Your task to perform on an android device: Go to internet settings Image 0: 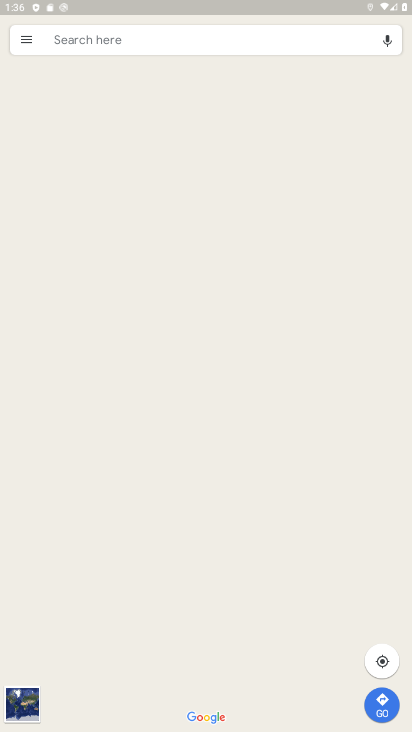
Step 0: press home button
Your task to perform on an android device: Go to internet settings Image 1: 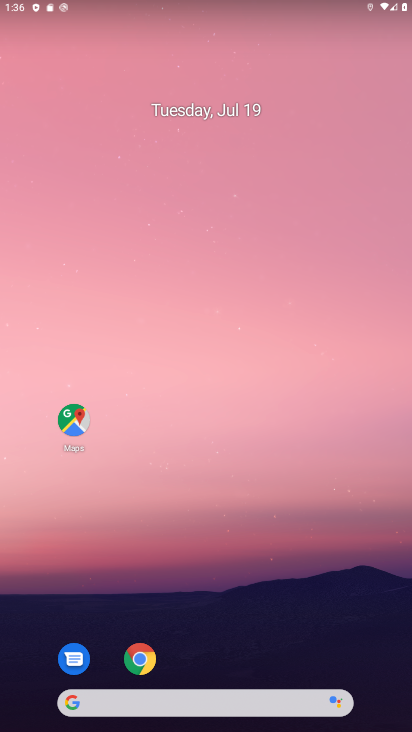
Step 1: drag from (196, 650) to (230, 108)
Your task to perform on an android device: Go to internet settings Image 2: 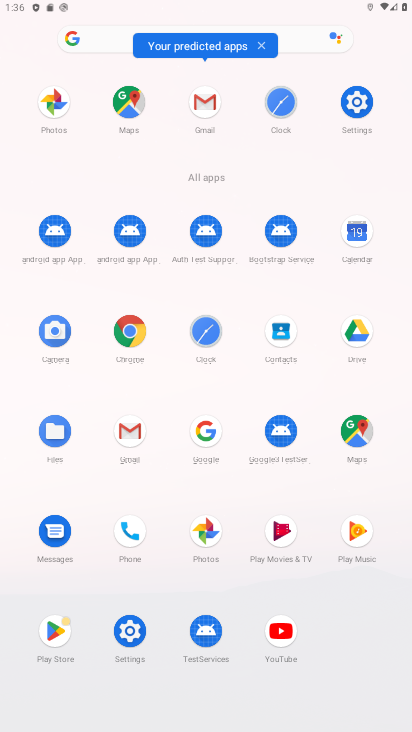
Step 2: click (353, 105)
Your task to perform on an android device: Go to internet settings Image 3: 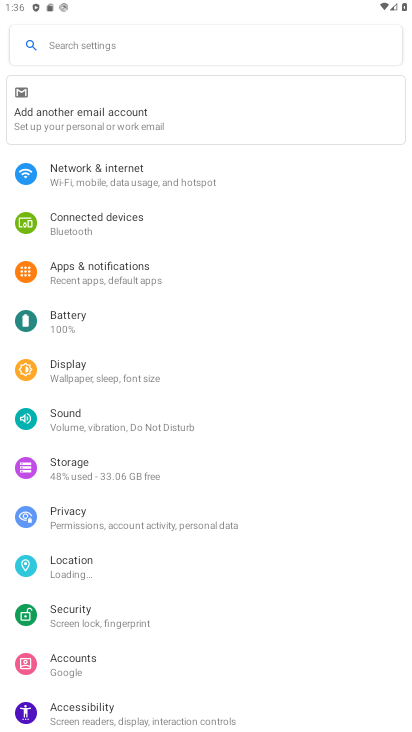
Step 3: click (139, 176)
Your task to perform on an android device: Go to internet settings Image 4: 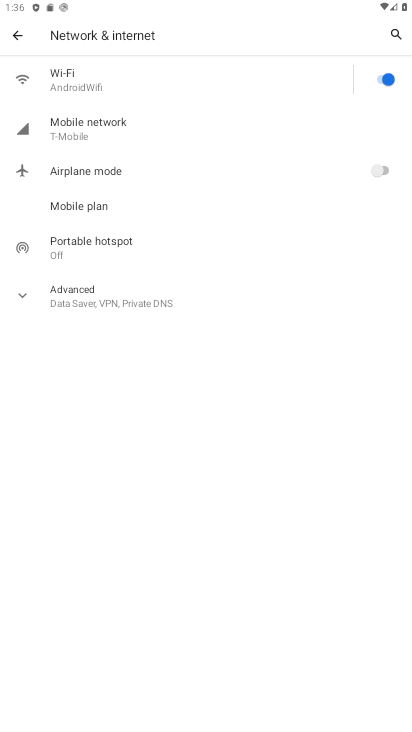
Step 4: click (106, 87)
Your task to perform on an android device: Go to internet settings Image 5: 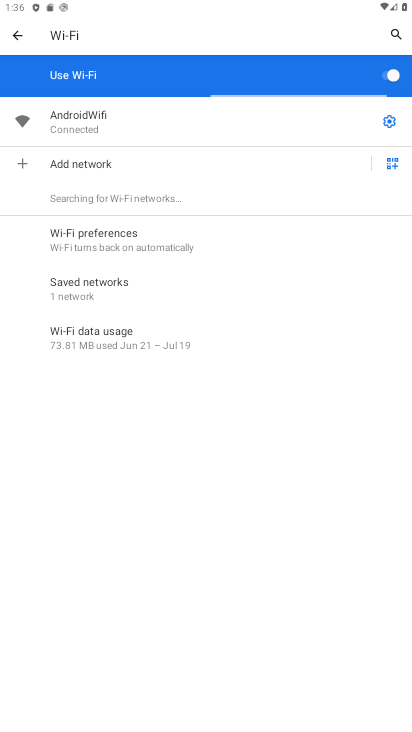
Step 5: click (196, 127)
Your task to perform on an android device: Go to internet settings Image 6: 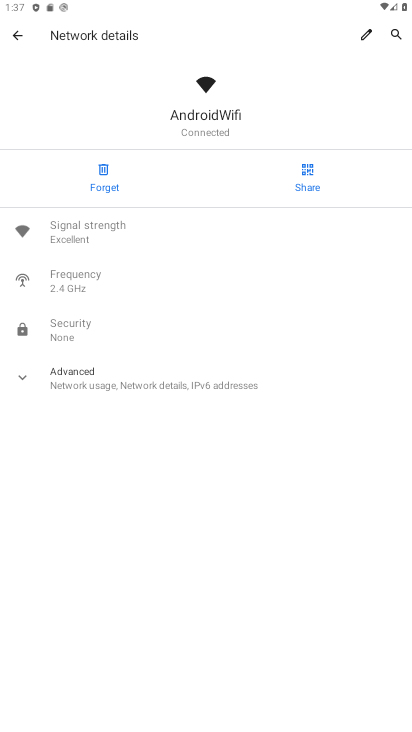
Step 6: task complete